Your task to perform on an android device: What's the weather? Image 0: 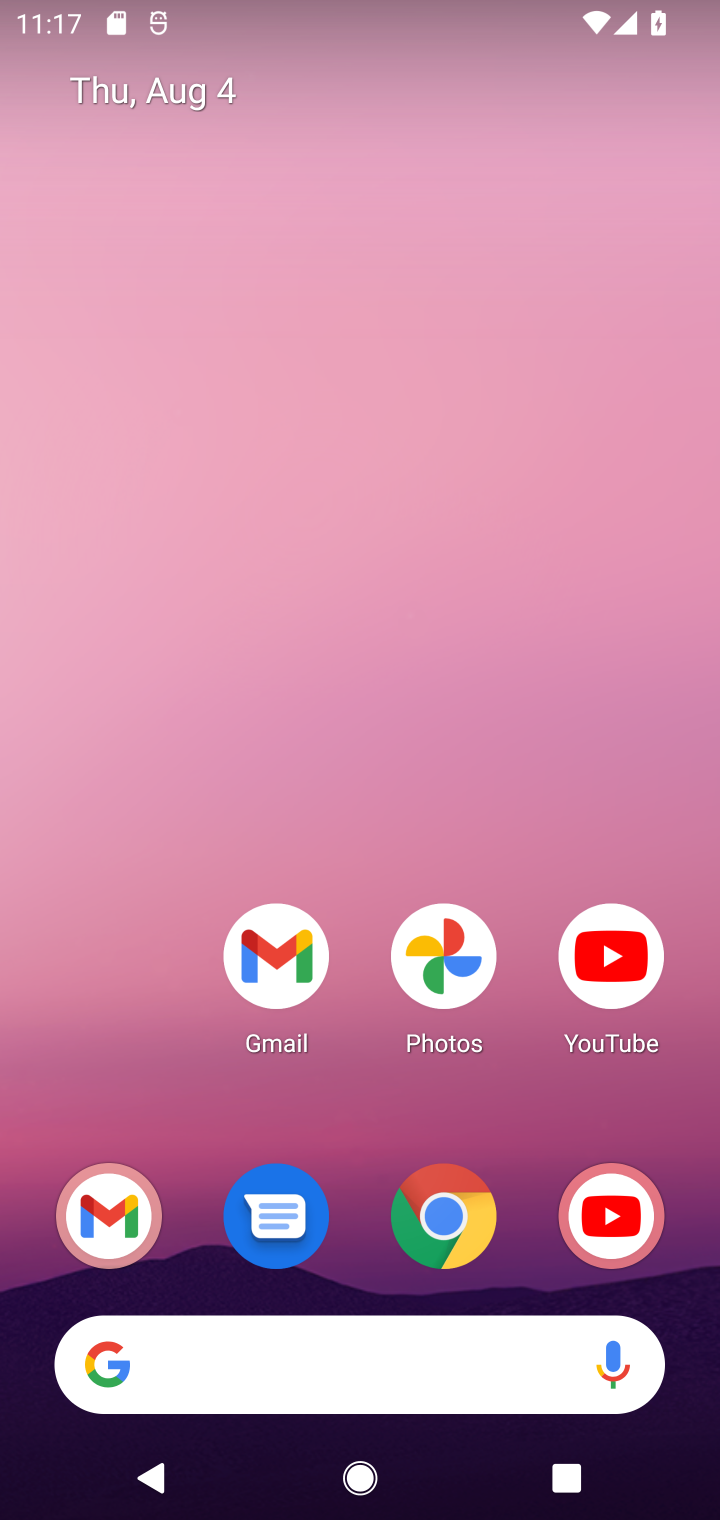
Step 0: click (264, 1355)
Your task to perform on an android device: What's the weather? Image 1: 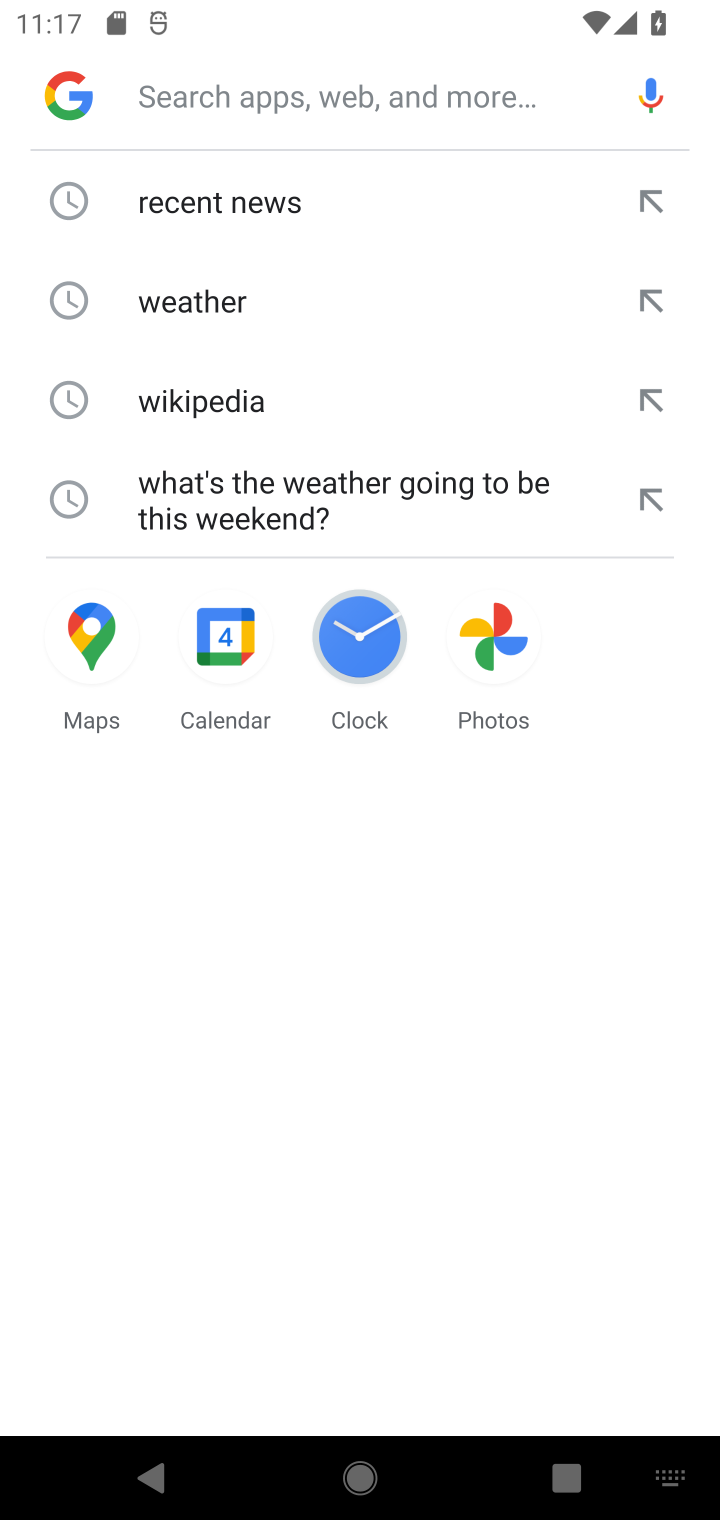
Step 1: click (219, 299)
Your task to perform on an android device: What's the weather? Image 2: 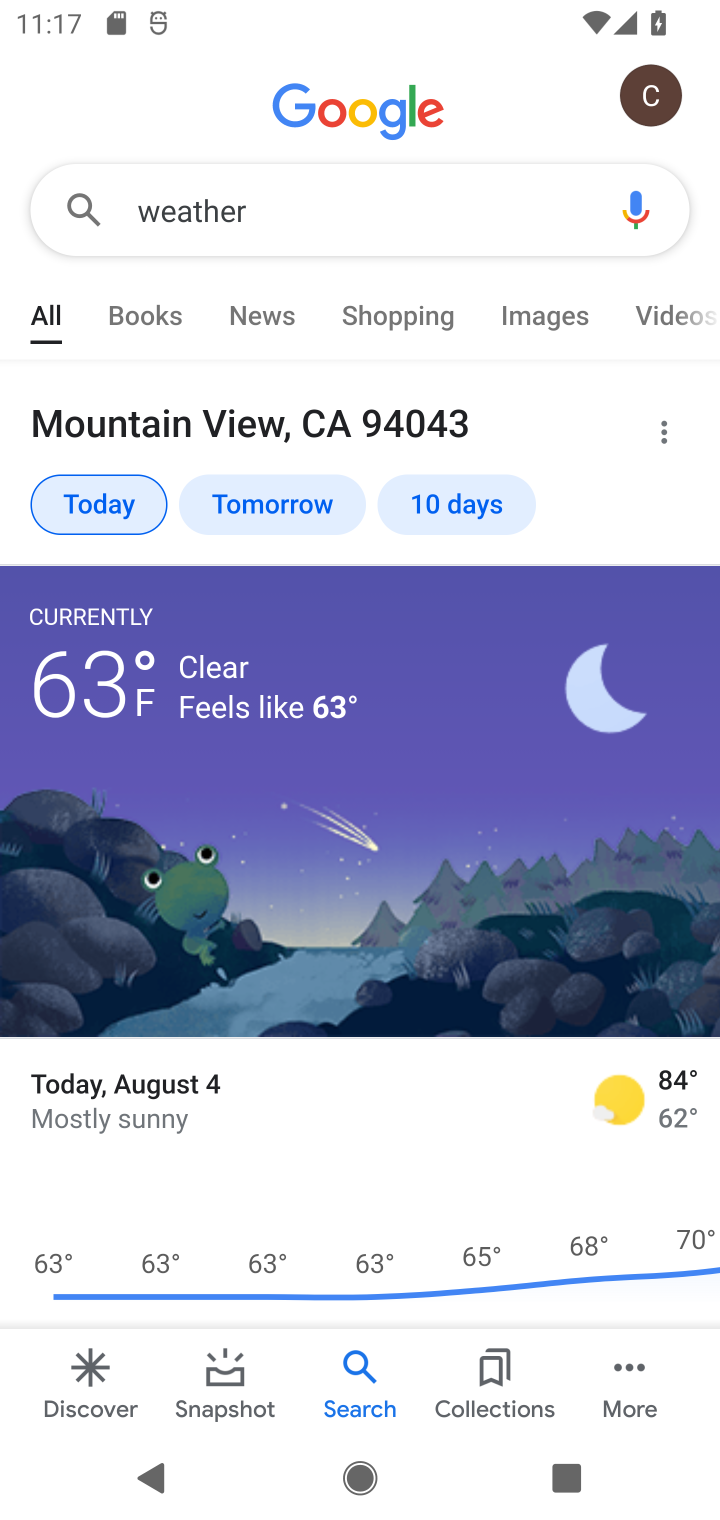
Step 2: click (118, 506)
Your task to perform on an android device: What's the weather? Image 3: 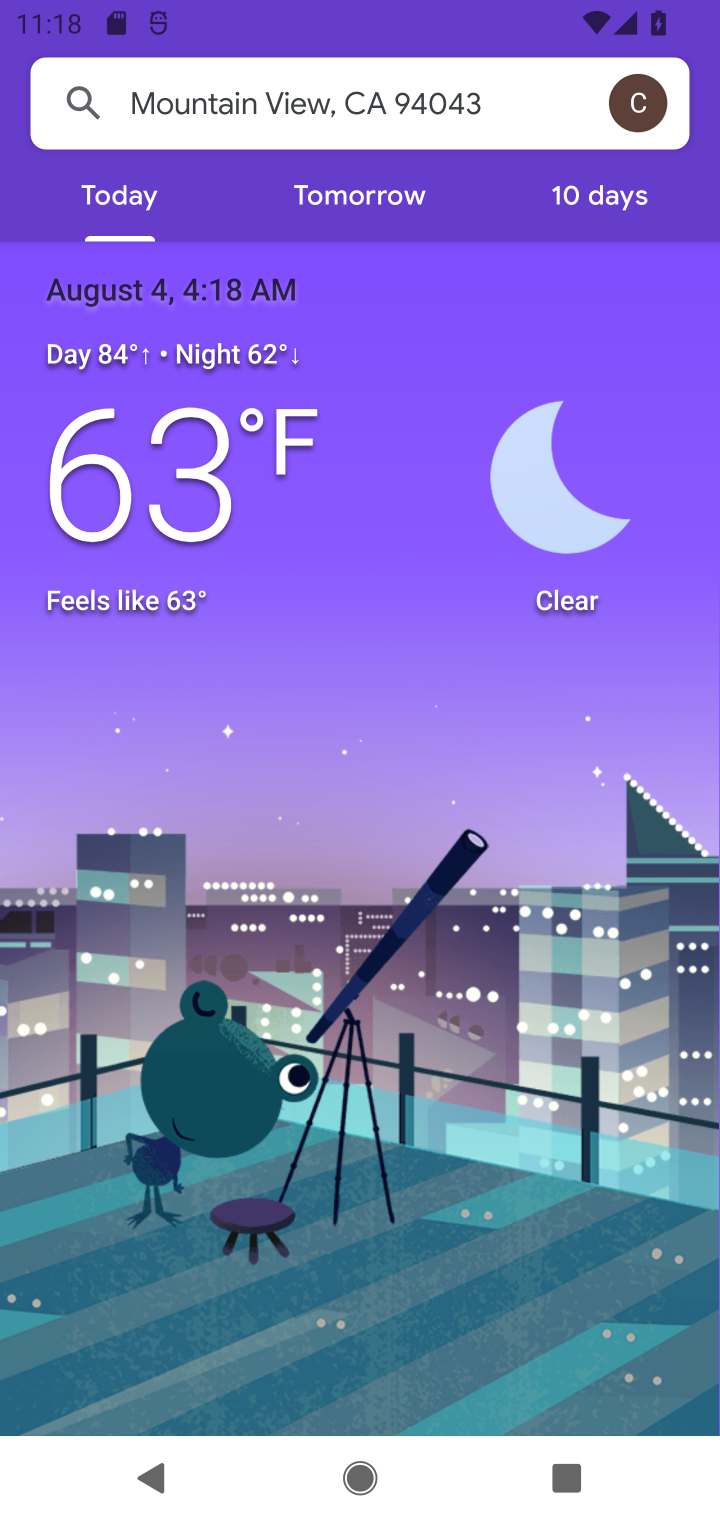
Step 3: task complete